Your task to perform on an android device: Open Android settings Image 0: 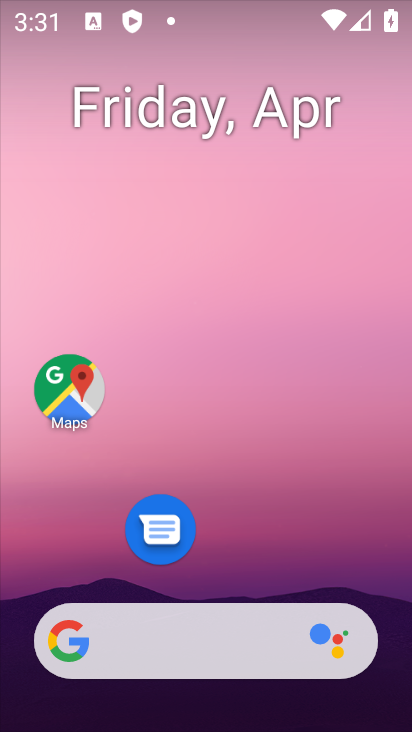
Step 0: drag from (221, 562) to (351, 86)
Your task to perform on an android device: Open Android settings Image 1: 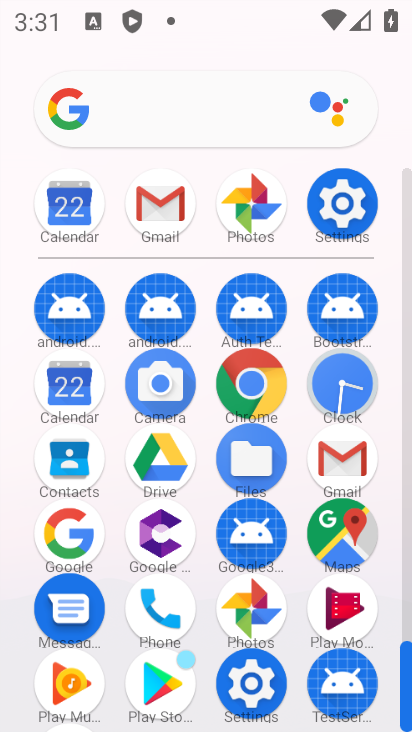
Step 1: click (352, 230)
Your task to perform on an android device: Open Android settings Image 2: 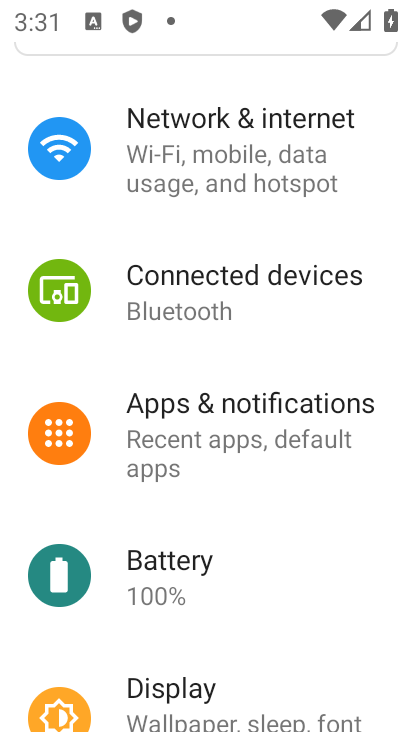
Step 2: drag from (244, 465) to (317, 207)
Your task to perform on an android device: Open Android settings Image 3: 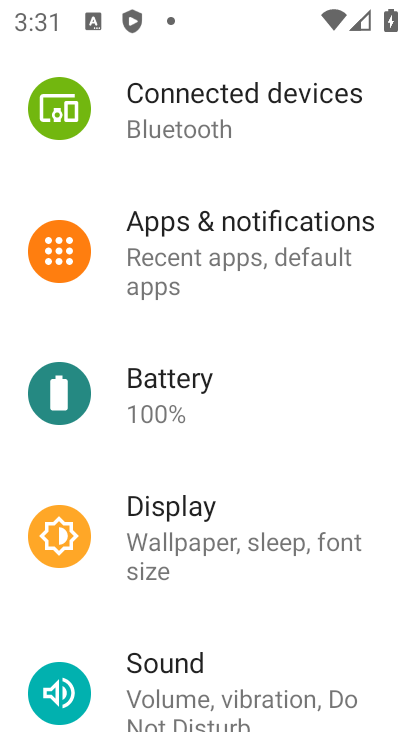
Step 3: drag from (262, 498) to (356, 169)
Your task to perform on an android device: Open Android settings Image 4: 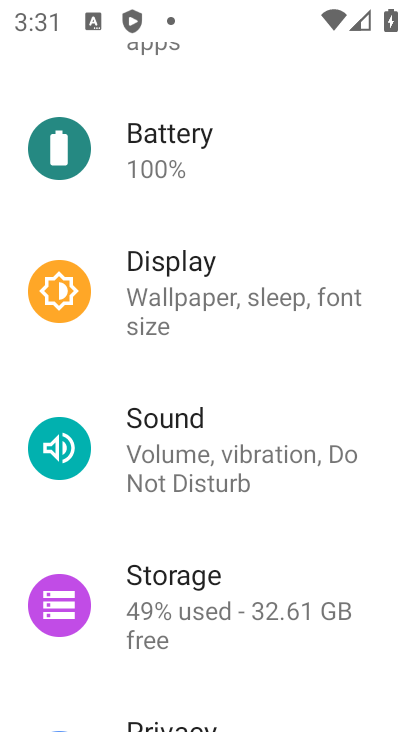
Step 4: drag from (266, 538) to (345, 208)
Your task to perform on an android device: Open Android settings Image 5: 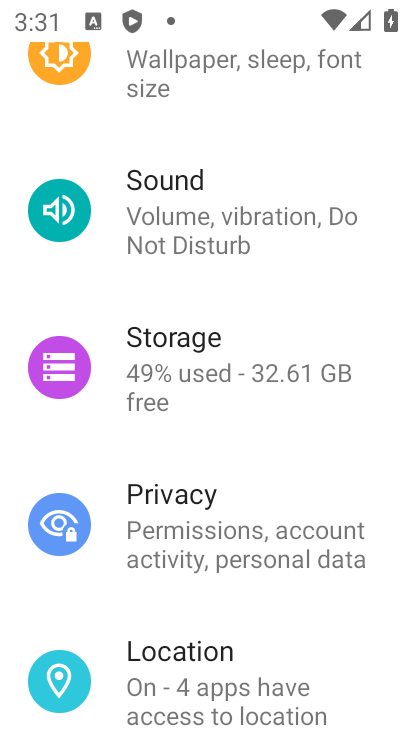
Step 5: drag from (251, 531) to (338, 278)
Your task to perform on an android device: Open Android settings Image 6: 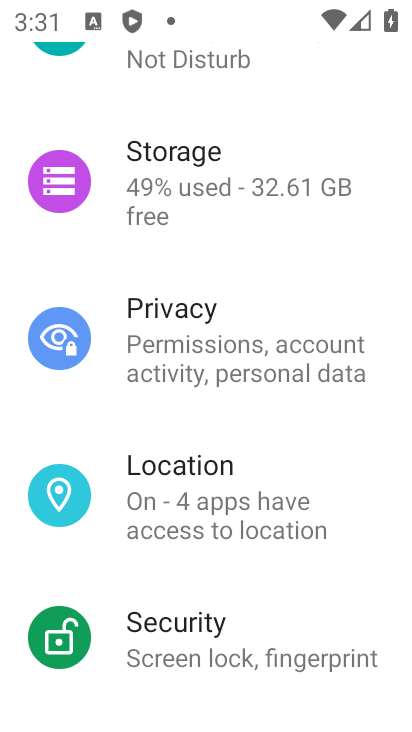
Step 6: drag from (298, 510) to (378, 153)
Your task to perform on an android device: Open Android settings Image 7: 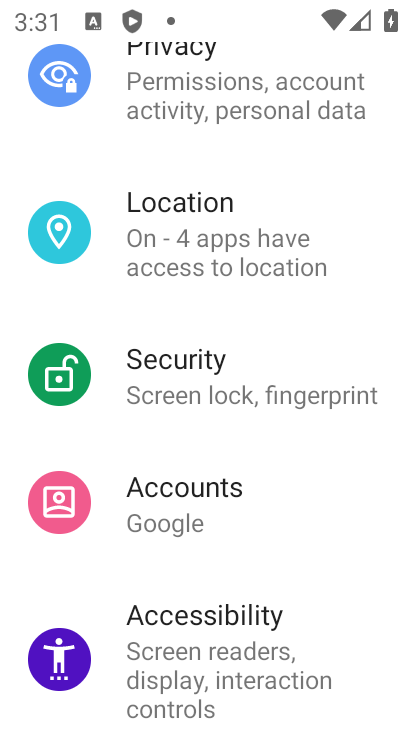
Step 7: drag from (259, 569) to (337, 153)
Your task to perform on an android device: Open Android settings Image 8: 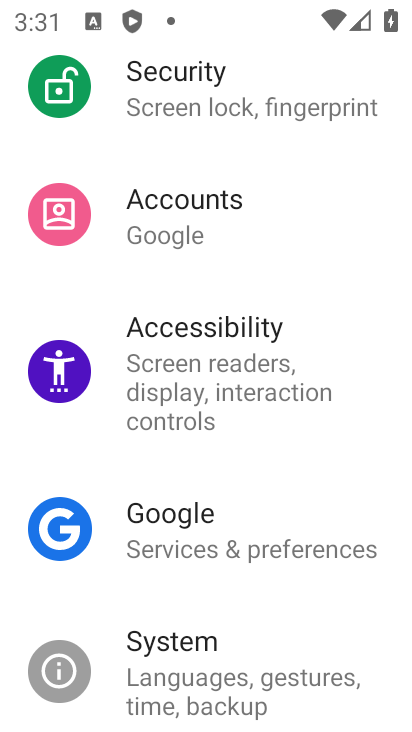
Step 8: drag from (252, 581) to (312, 243)
Your task to perform on an android device: Open Android settings Image 9: 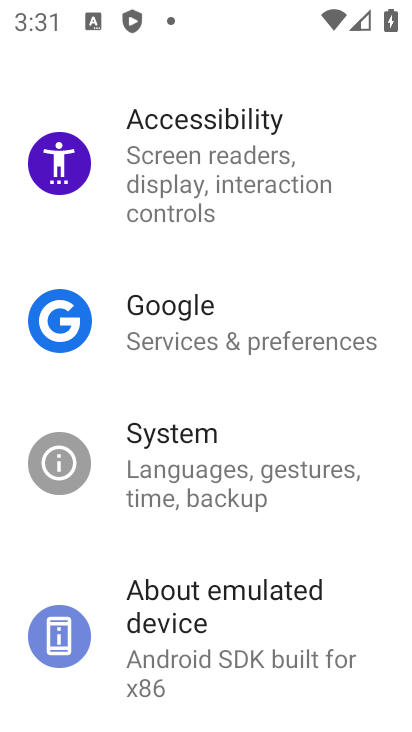
Step 9: click (266, 643)
Your task to perform on an android device: Open Android settings Image 10: 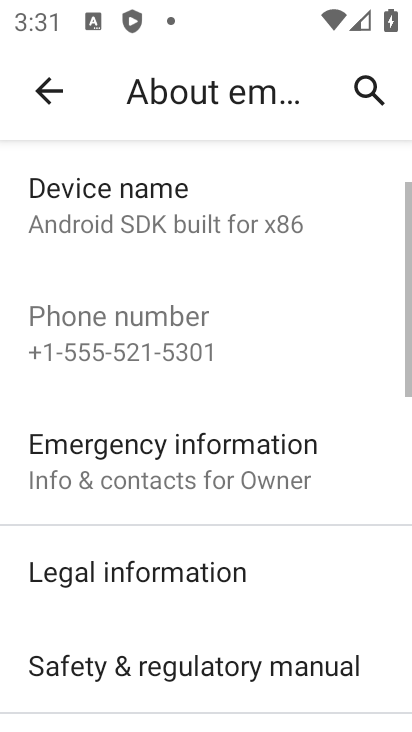
Step 10: drag from (276, 580) to (343, 302)
Your task to perform on an android device: Open Android settings Image 11: 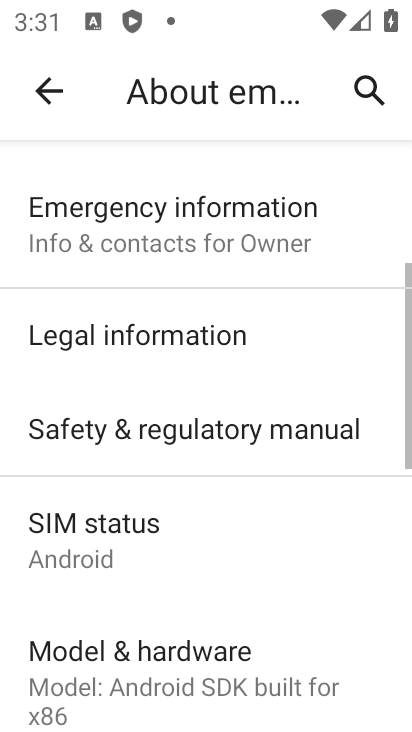
Step 11: drag from (260, 505) to (296, 304)
Your task to perform on an android device: Open Android settings Image 12: 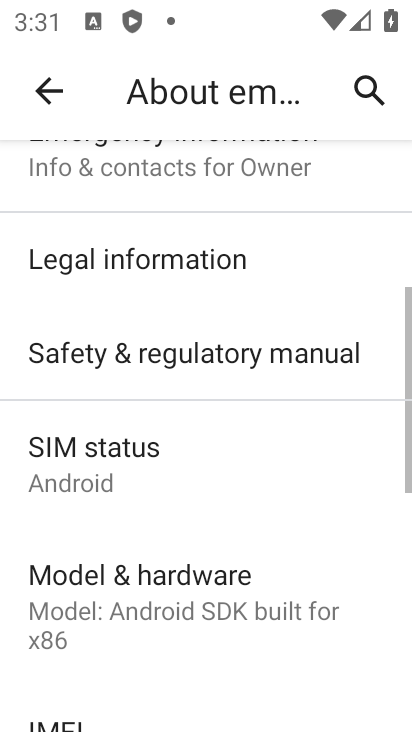
Step 12: drag from (188, 456) to (205, 307)
Your task to perform on an android device: Open Android settings Image 13: 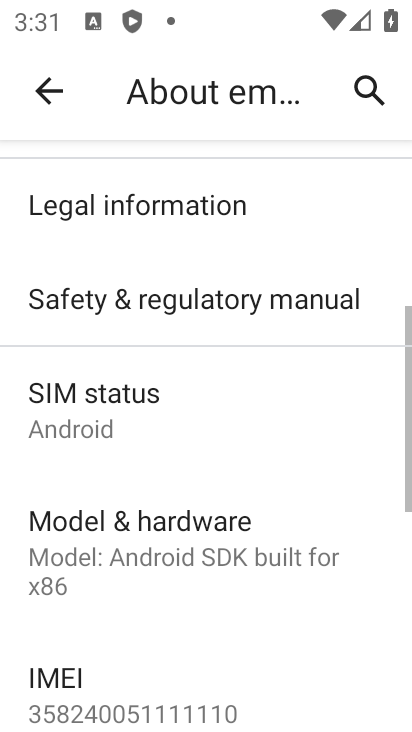
Step 13: drag from (163, 533) to (237, 274)
Your task to perform on an android device: Open Android settings Image 14: 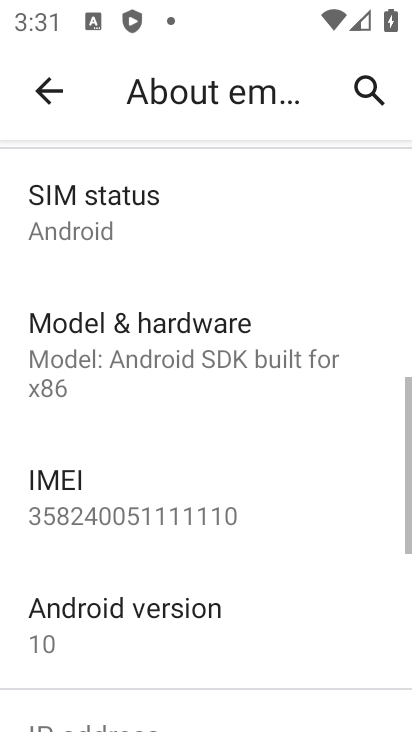
Step 14: click (159, 629)
Your task to perform on an android device: Open Android settings Image 15: 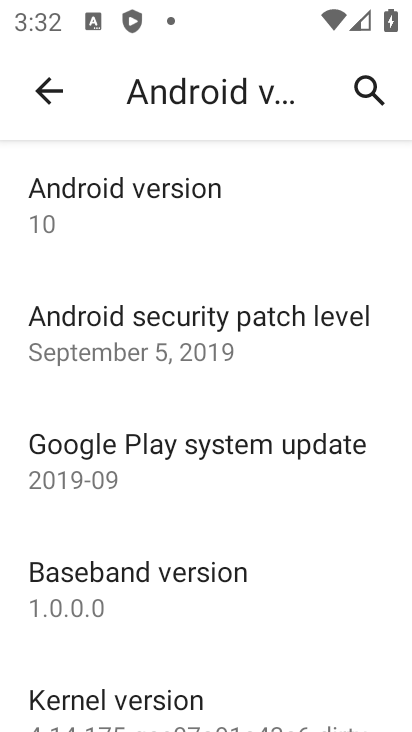
Step 15: click (212, 213)
Your task to perform on an android device: Open Android settings Image 16: 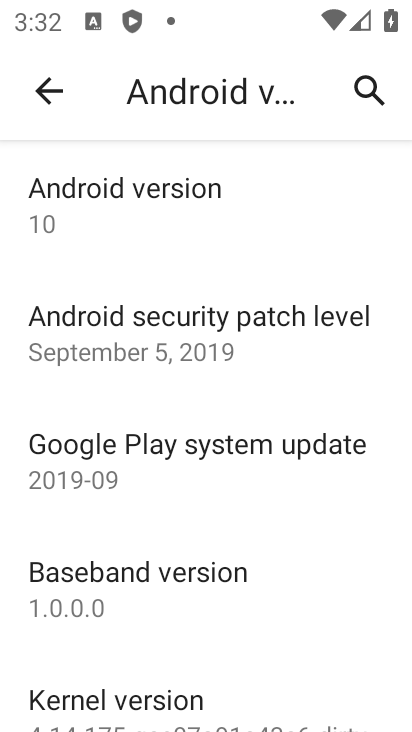
Step 16: task complete